Your task to perform on an android device: open app "Venmo" Image 0: 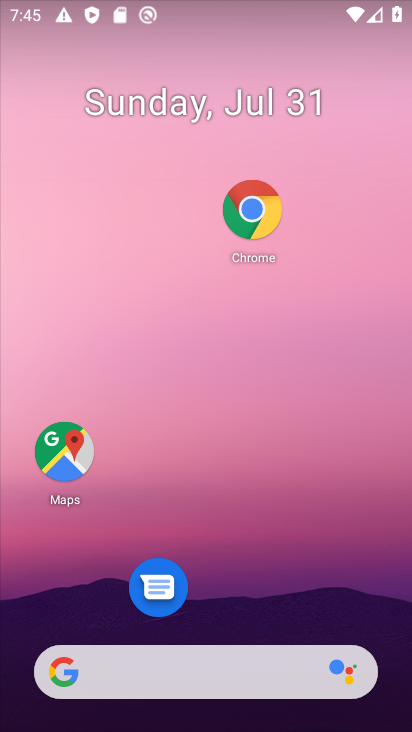
Step 0: drag from (273, 707) to (202, 282)
Your task to perform on an android device: open app "Venmo" Image 1: 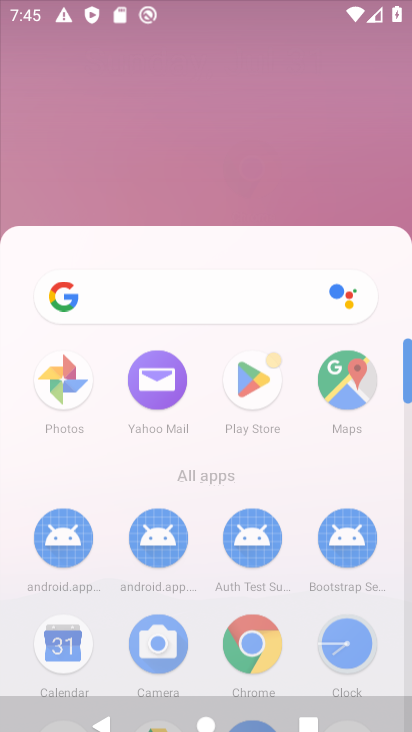
Step 1: drag from (173, 152) to (168, 115)
Your task to perform on an android device: open app "Venmo" Image 2: 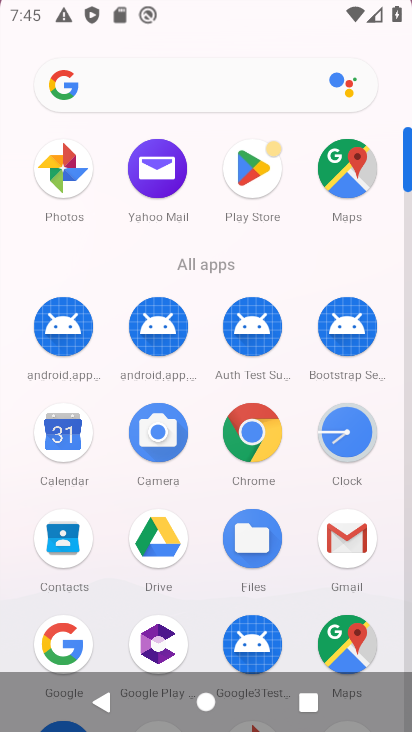
Step 2: drag from (272, 495) to (244, 89)
Your task to perform on an android device: open app "Venmo" Image 3: 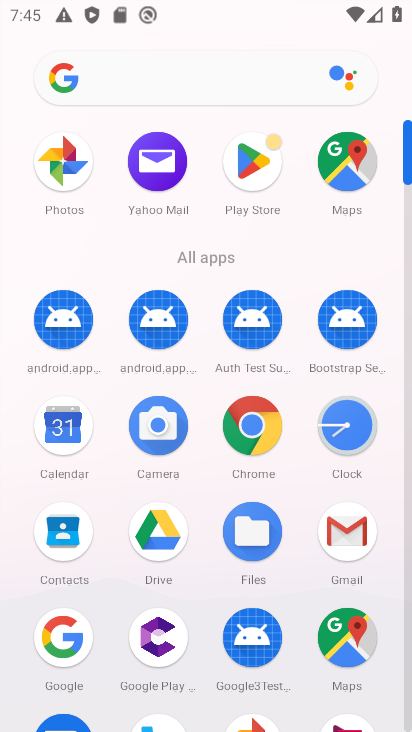
Step 3: click (251, 161)
Your task to perform on an android device: open app "Venmo" Image 4: 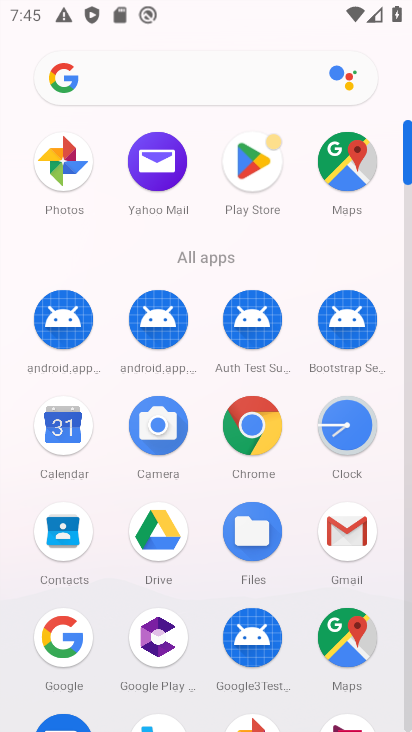
Step 4: click (248, 163)
Your task to perform on an android device: open app "Venmo" Image 5: 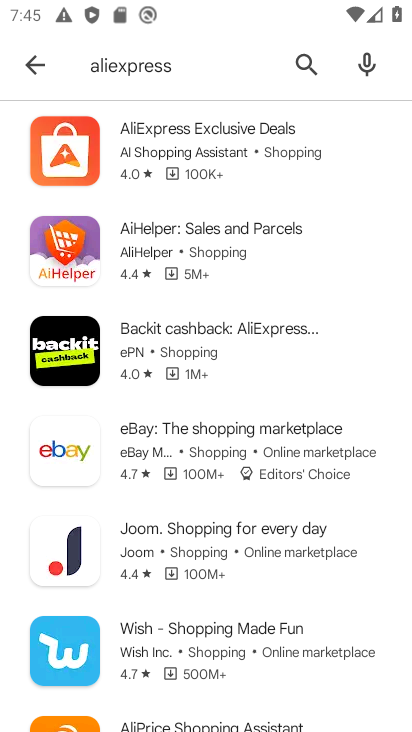
Step 5: click (28, 63)
Your task to perform on an android device: open app "Venmo" Image 6: 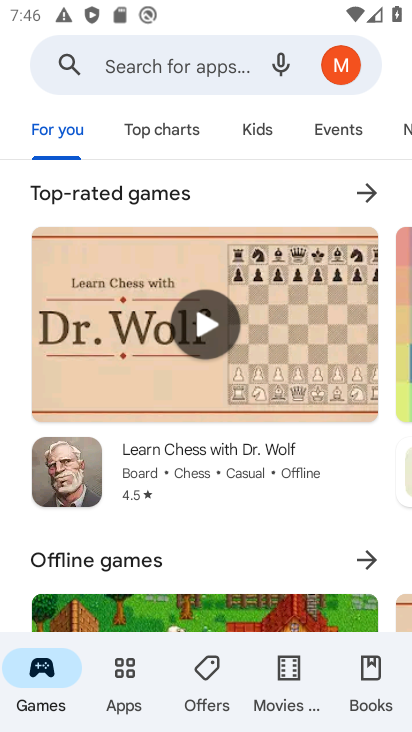
Step 6: click (124, 75)
Your task to perform on an android device: open app "Venmo" Image 7: 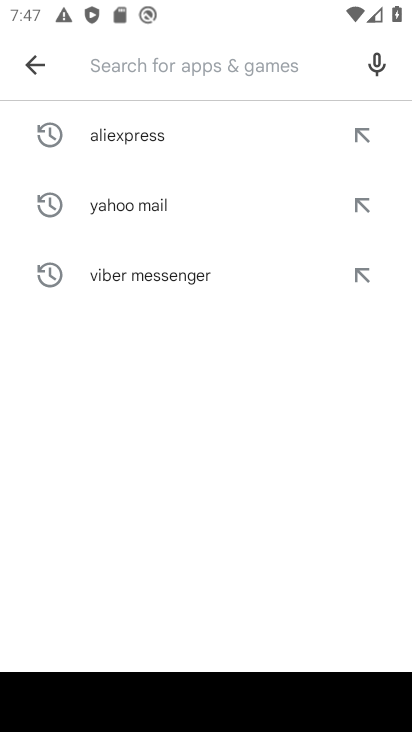
Step 7: type "venmo"
Your task to perform on an android device: open app "Venmo" Image 8: 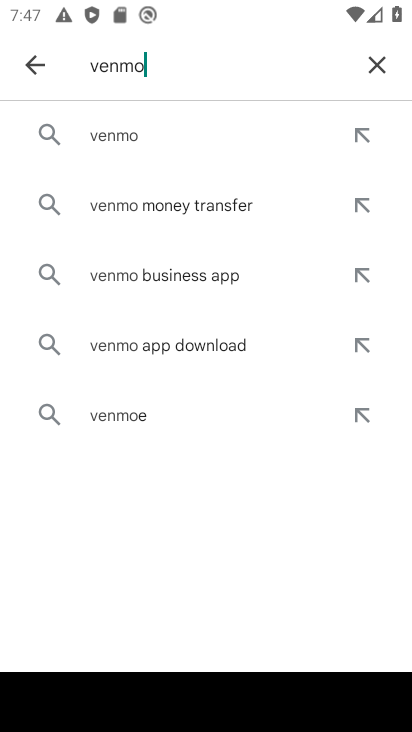
Step 8: click (123, 130)
Your task to perform on an android device: open app "Venmo" Image 9: 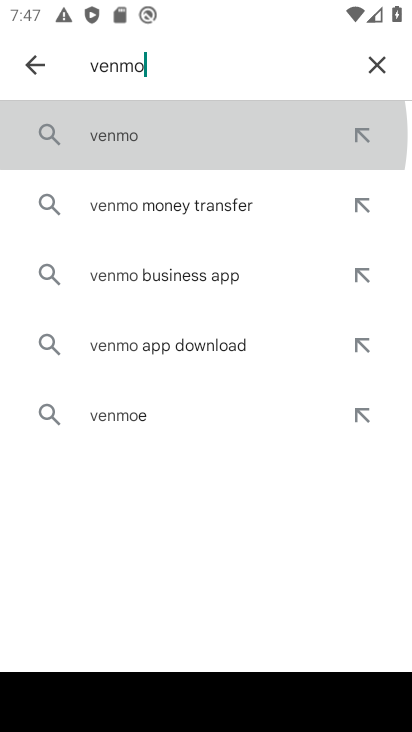
Step 9: click (109, 134)
Your task to perform on an android device: open app "Venmo" Image 10: 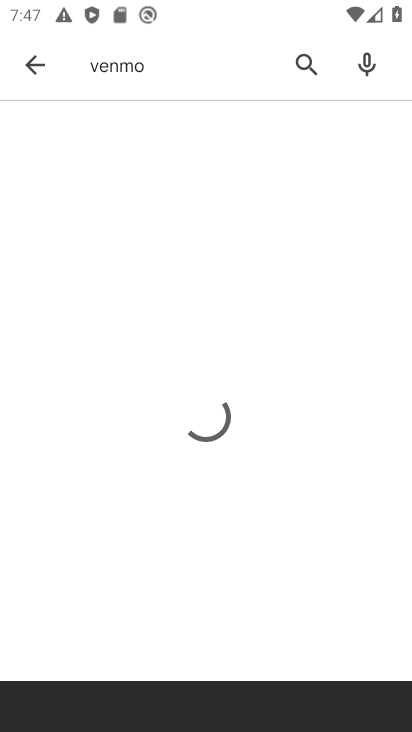
Step 10: click (108, 135)
Your task to perform on an android device: open app "Venmo" Image 11: 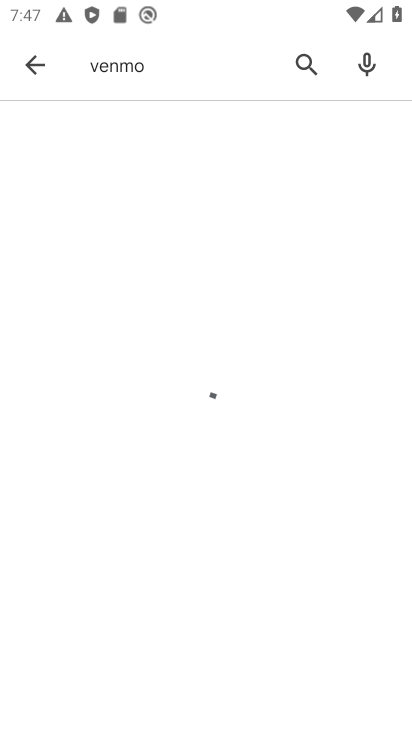
Step 11: click (108, 135)
Your task to perform on an android device: open app "Venmo" Image 12: 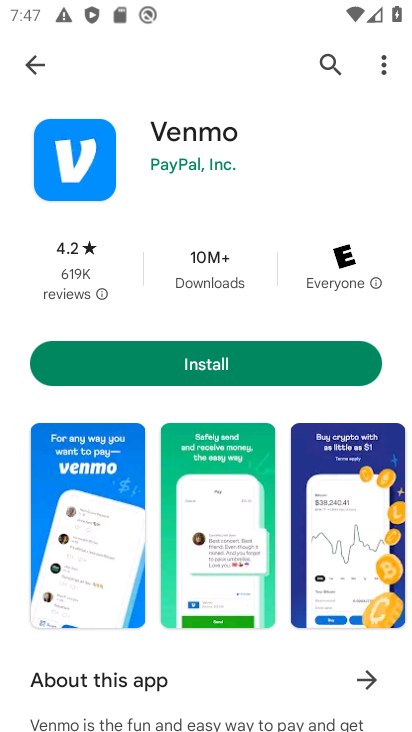
Step 12: click (204, 356)
Your task to perform on an android device: open app "Venmo" Image 13: 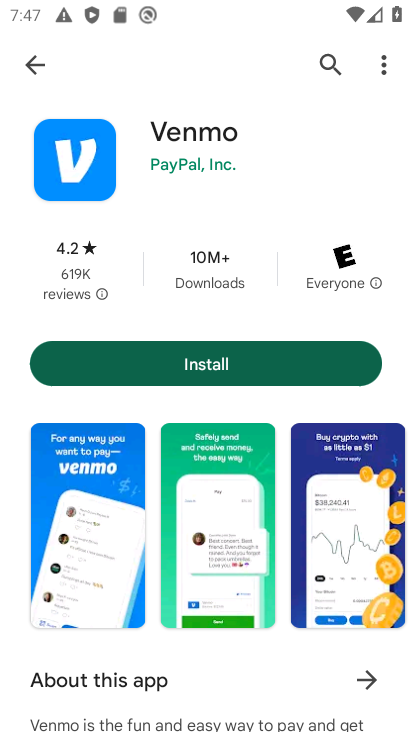
Step 13: click (204, 356)
Your task to perform on an android device: open app "Venmo" Image 14: 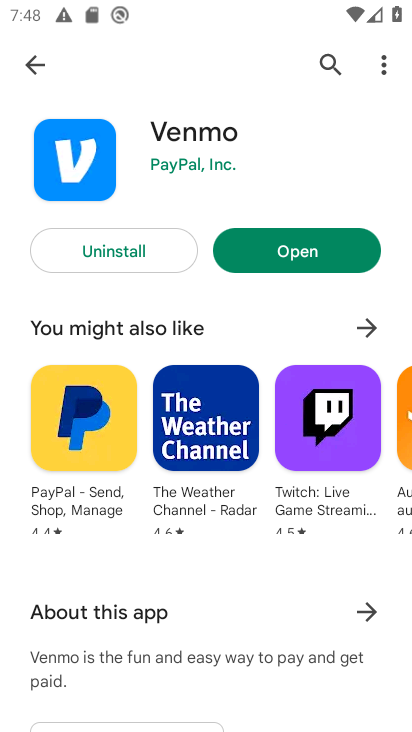
Step 14: click (290, 250)
Your task to perform on an android device: open app "Venmo" Image 15: 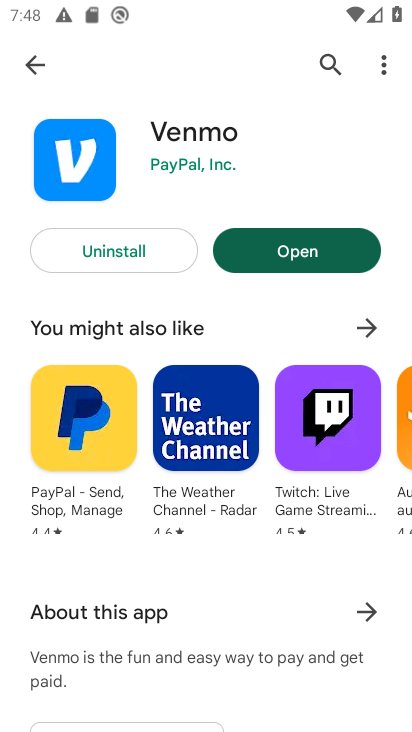
Step 15: click (295, 251)
Your task to perform on an android device: open app "Venmo" Image 16: 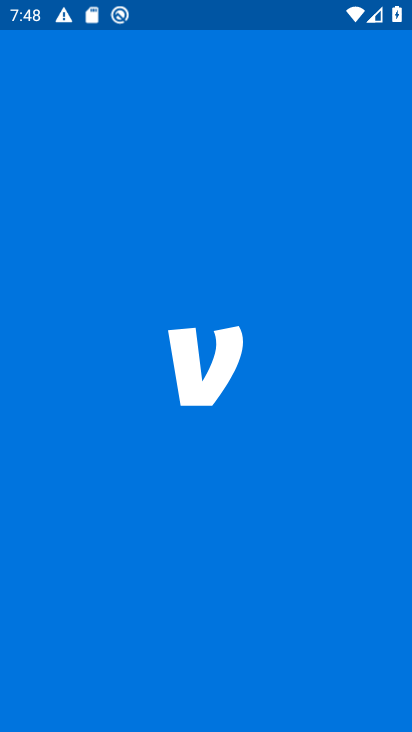
Step 16: click (303, 246)
Your task to perform on an android device: open app "Venmo" Image 17: 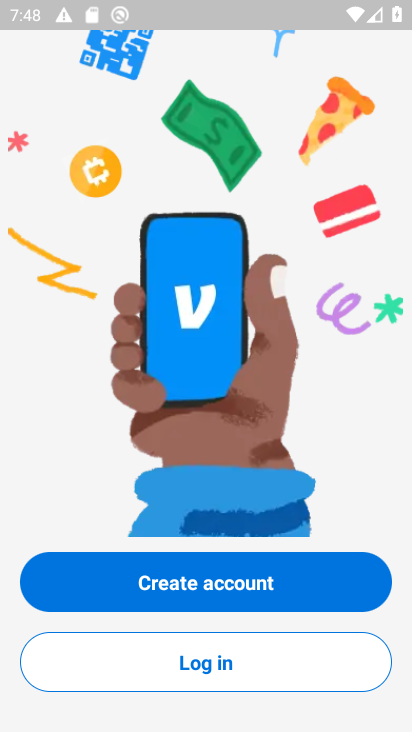
Step 17: click (271, 654)
Your task to perform on an android device: open app "Venmo" Image 18: 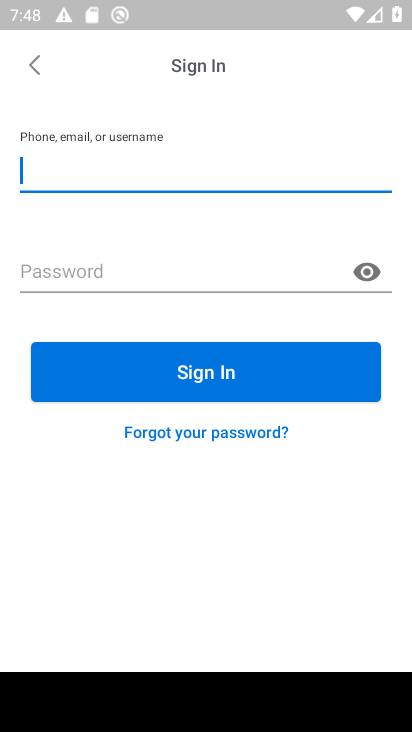
Step 18: task complete